Your task to perform on an android device: change text size in settings app Image 0: 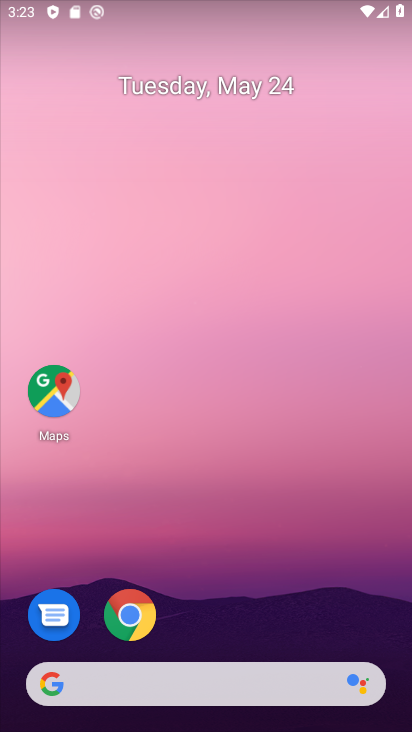
Step 0: drag from (237, 727) to (190, 36)
Your task to perform on an android device: change text size in settings app Image 1: 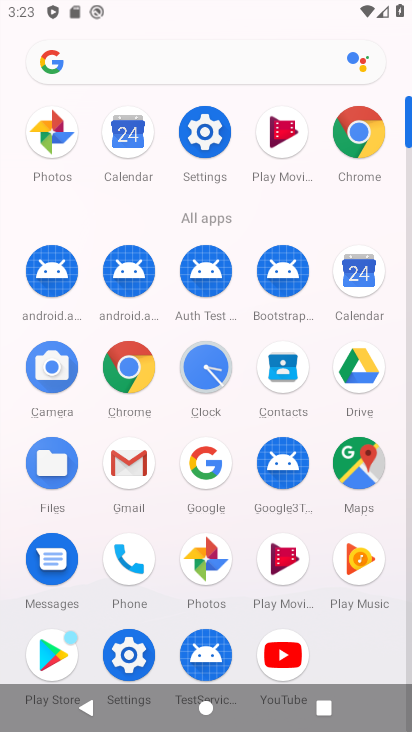
Step 1: click (204, 142)
Your task to perform on an android device: change text size in settings app Image 2: 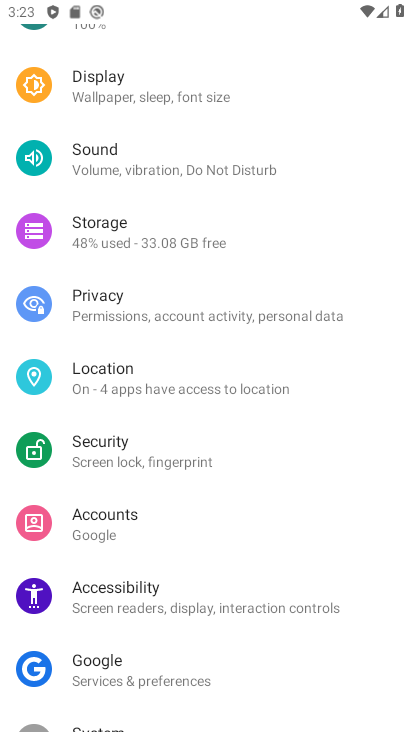
Step 2: click (157, 93)
Your task to perform on an android device: change text size in settings app Image 3: 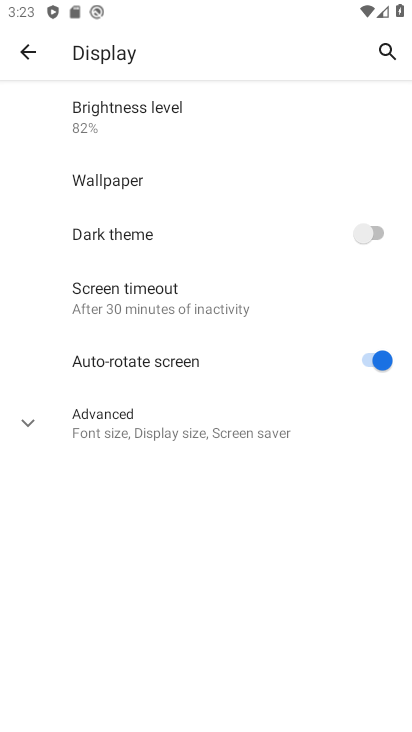
Step 3: click (110, 431)
Your task to perform on an android device: change text size in settings app Image 4: 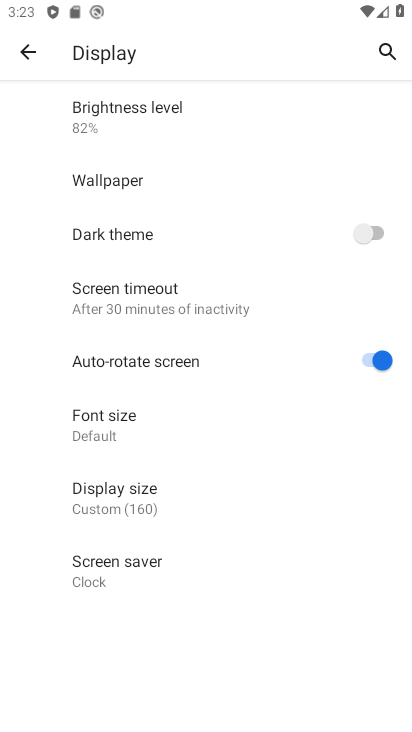
Step 4: click (89, 423)
Your task to perform on an android device: change text size in settings app Image 5: 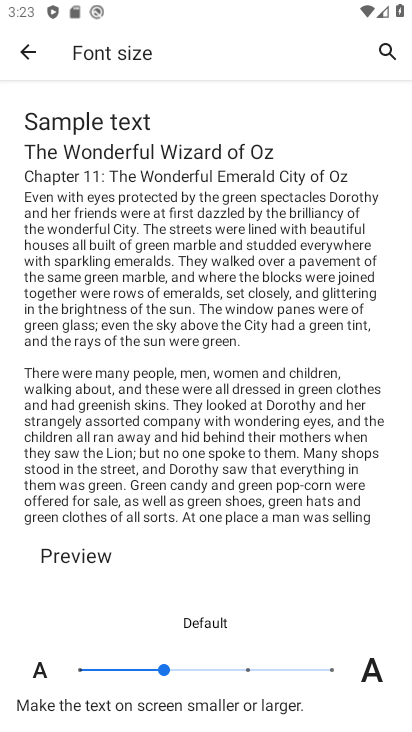
Step 5: click (244, 669)
Your task to perform on an android device: change text size in settings app Image 6: 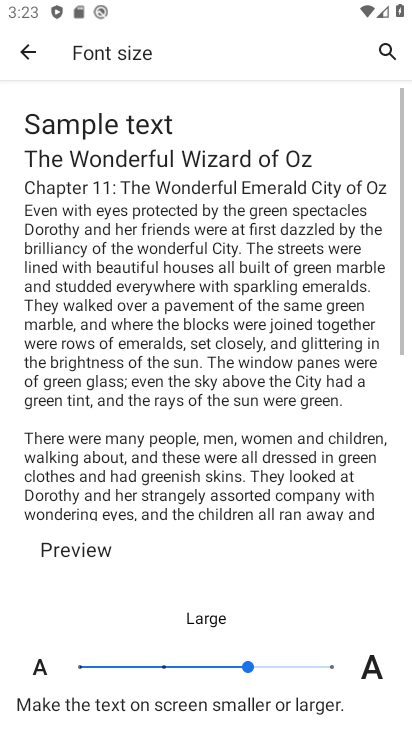
Step 6: task complete